Your task to perform on an android device: Go to CNN.com Image 0: 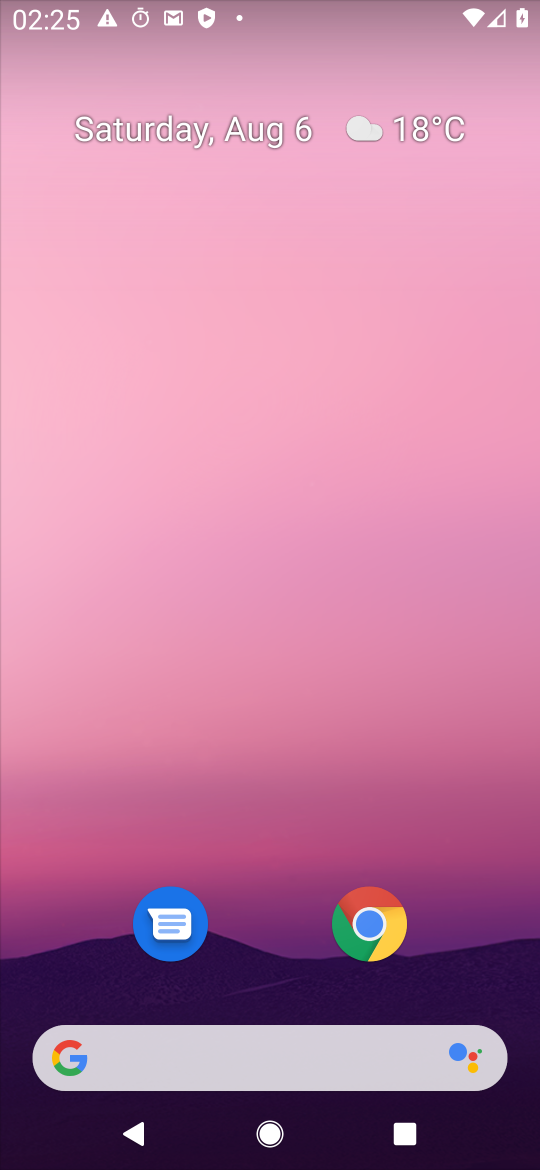
Step 0: drag from (369, 1073) to (328, 119)
Your task to perform on an android device: Go to CNN.com Image 1: 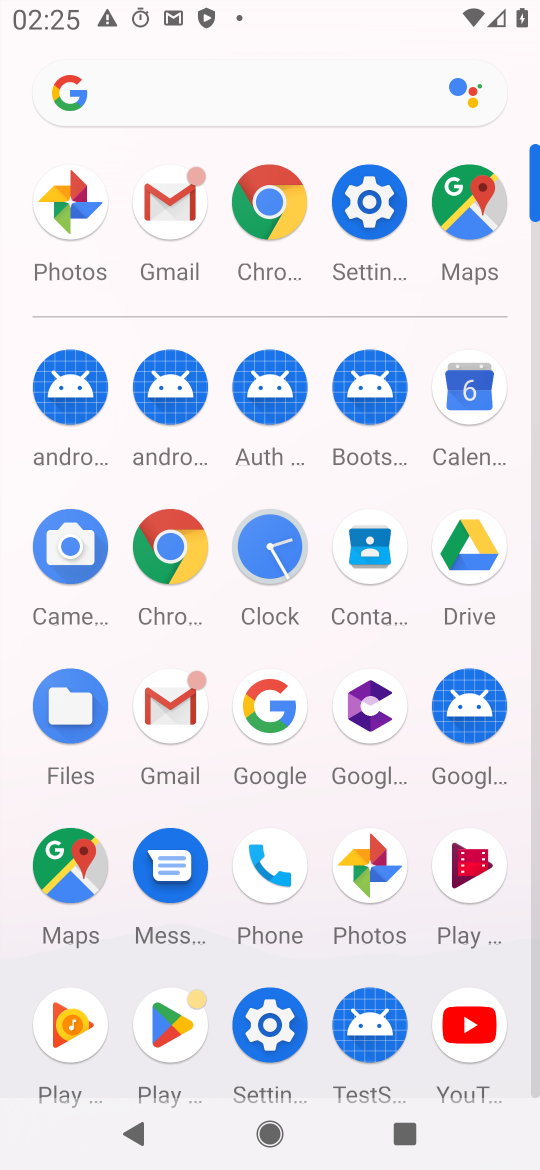
Step 1: click (168, 530)
Your task to perform on an android device: Go to CNN.com Image 2: 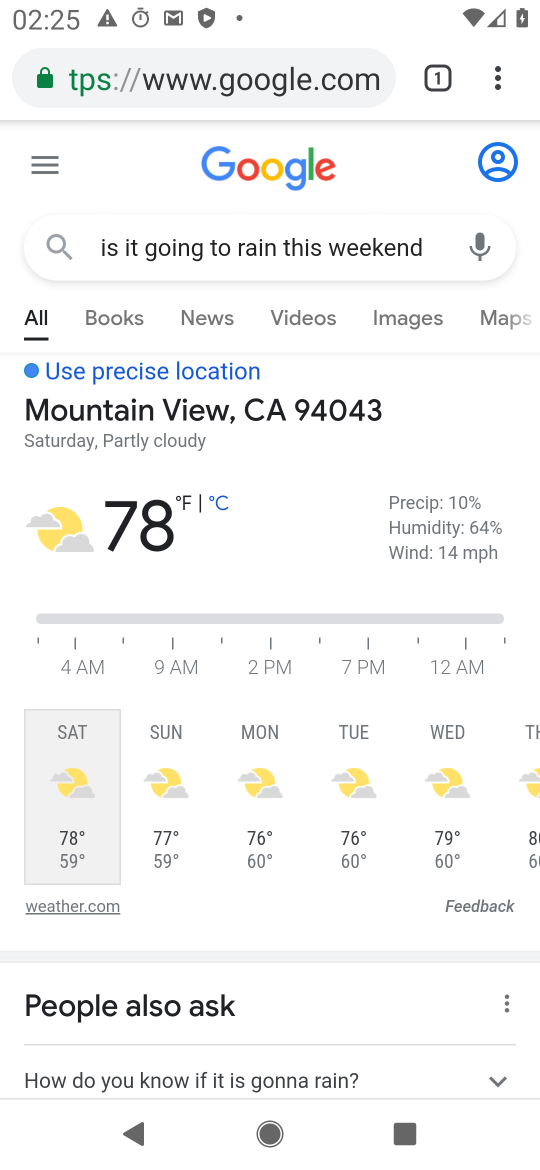
Step 2: click (311, 95)
Your task to perform on an android device: Go to CNN.com Image 3: 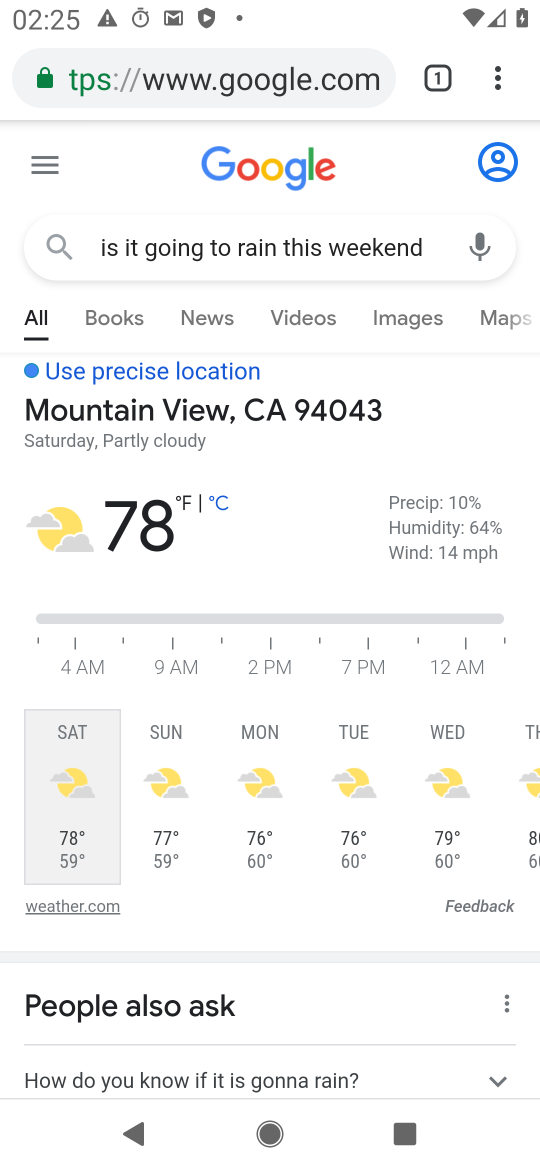
Step 3: click (311, 95)
Your task to perform on an android device: Go to CNN.com Image 4: 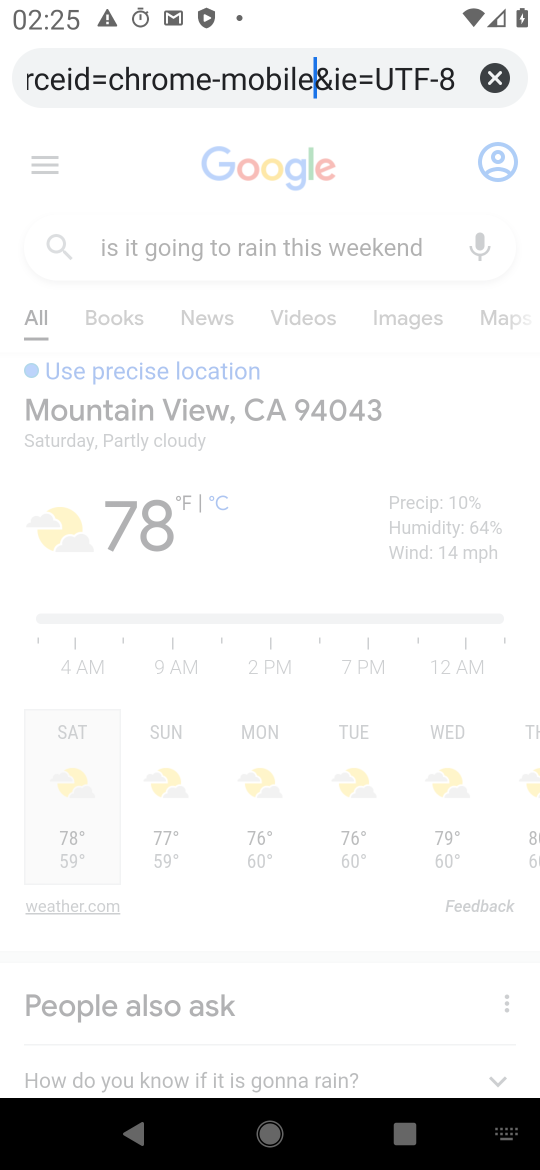
Step 4: type "cnn.com"
Your task to perform on an android device: Go to CNN.com Image 5: 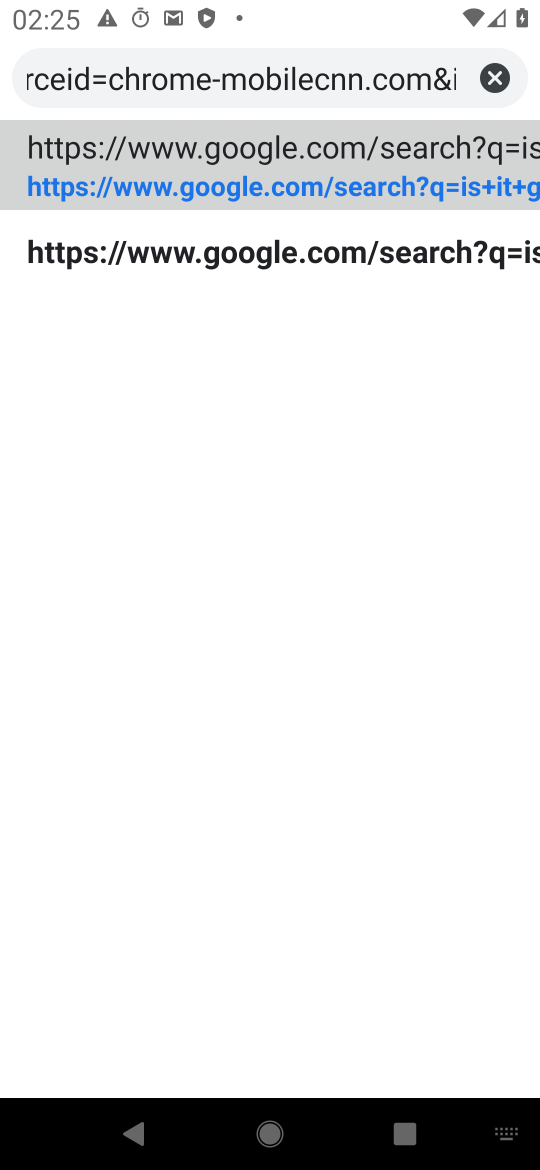
Step 5: click (495, 69)
Your task to perform on an android device: Go to CNN.com Image 6: 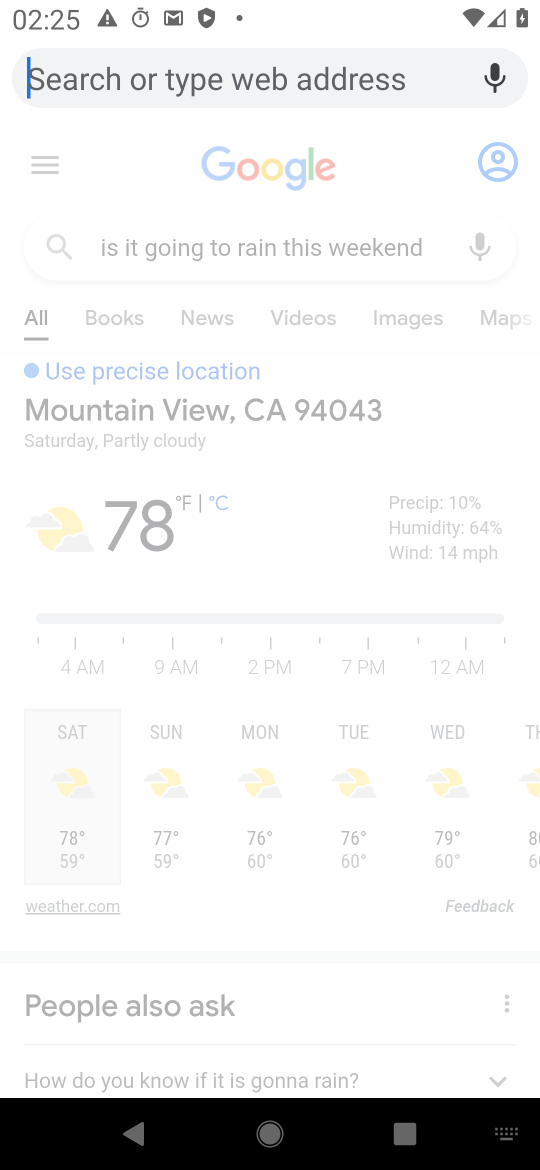
Step 6: type "cnn.com"
Your task to perform on an android device: Go to CNN.com Image 7: 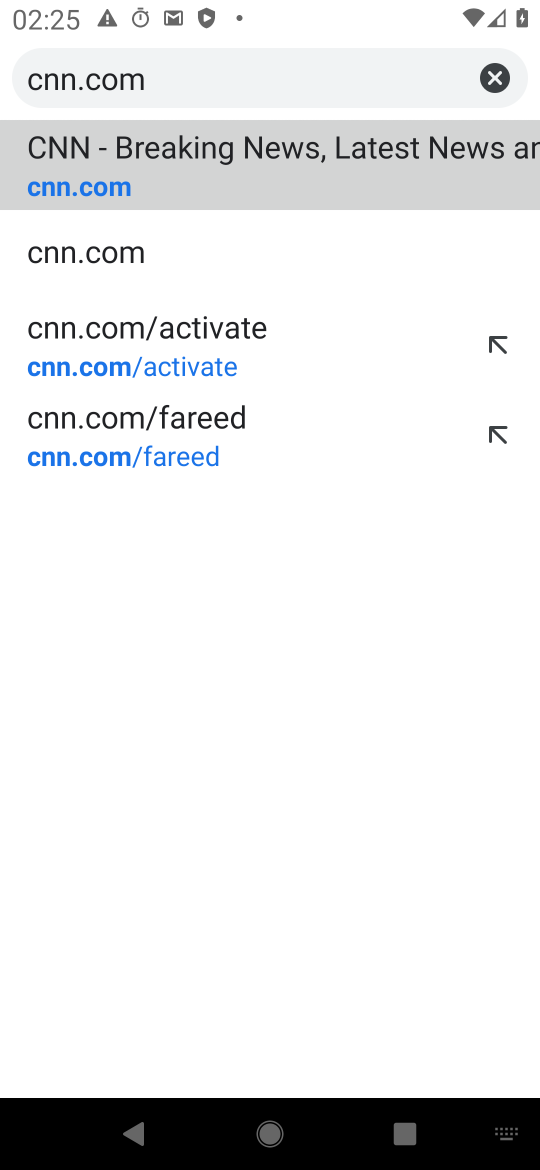
Step 7: click (235, 170)
Your task to perform on an android device: Go to CNN.com Image 8: 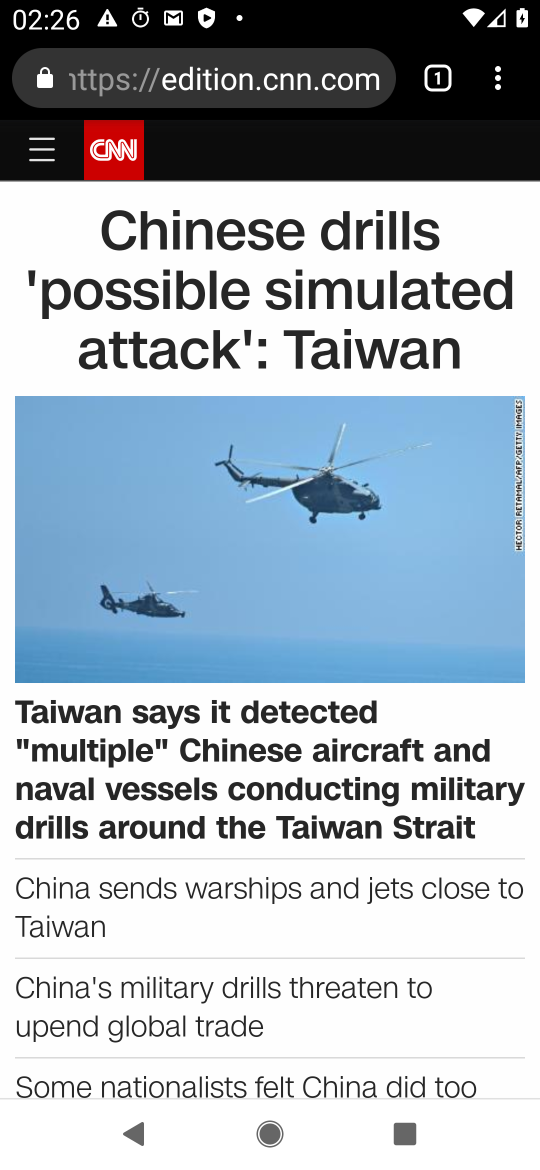
Step 8: task complete